Your task to perform on an android device: Open the calendar app, open the side menu, and click the "Day" option Image 0: 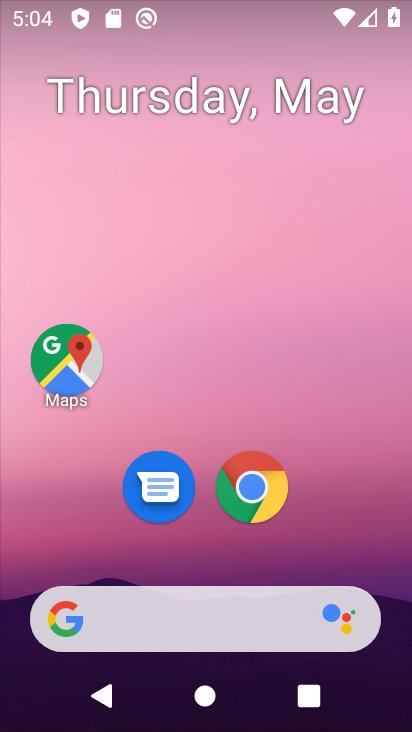
Step 0: drag from (323, 544) to (340, 54)
Your task to perform on an android device: Open the calendar app, open the side menu, and click the "Day" option Image 1: 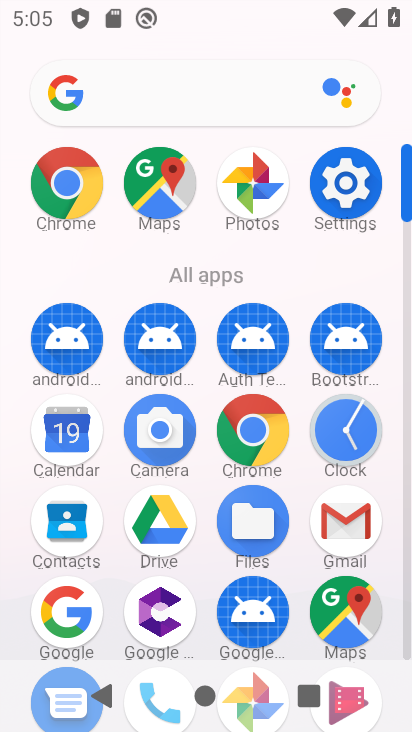
Step 1: click (72, 430)
Your task to perform on an android device: Open the calendar app, open the side menu, and click the "Day" option Image 2: 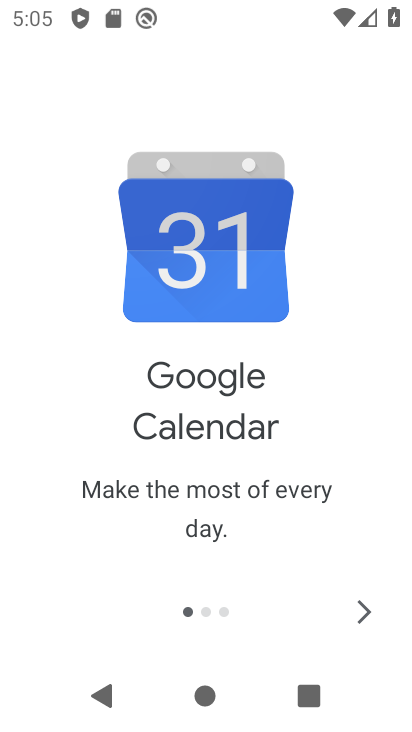
Step 2: click (355, 606)
Your task to perform on an android device: Open the calendar app, open the side menu, and click the "Day" option Image 3: 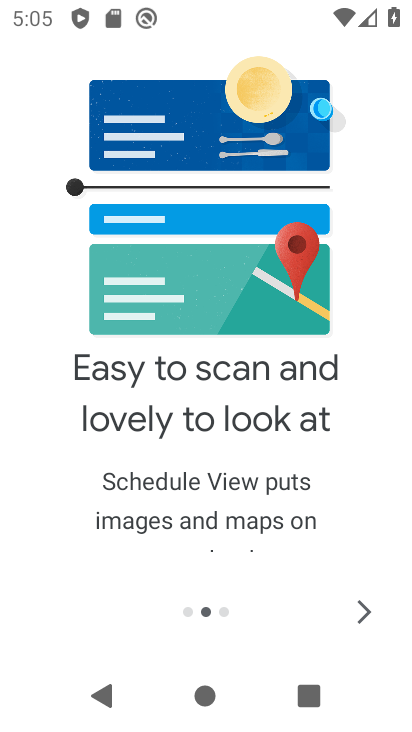
Step 3: click (355, 606)
Your task to perform on an android device: Open the calendar app, open the side menu, and click the "Day" option Image 4: 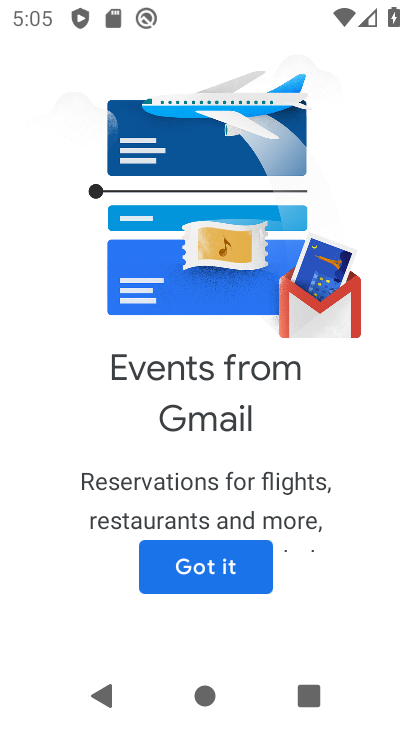
Step 4: click (261, 571)
Your task to perform on an android device: Open the calendar app, open the side menu, and click the "Day" option Image 5: 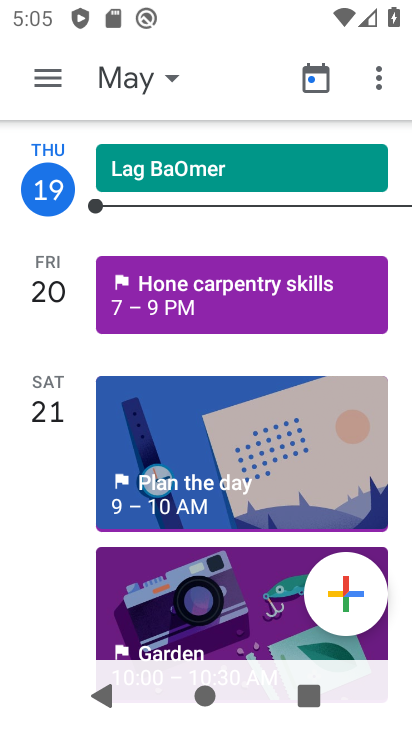
Step 5: click (46, 73)
Your task to perform on an android device: Open the calendar app, open the side menu, and click the "Day" option Image 6: 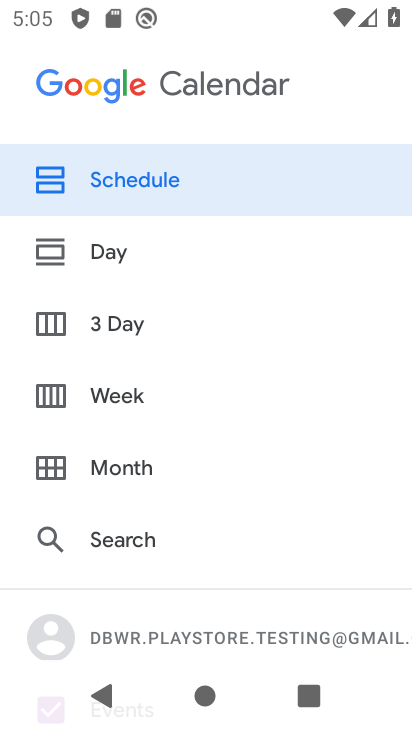
Step 6: click (138, 253)
Your task to perform on an android device: Open the calendar app, open the side menu, and click the "Day" option Image 7: 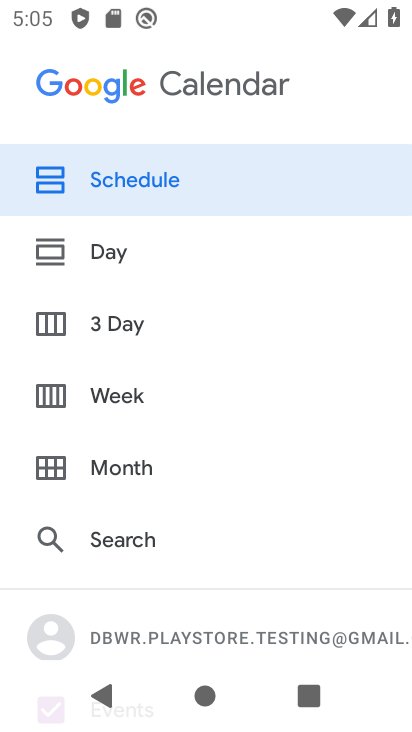
Step 7: click (104, 245)
Your task to perform on an android device: Open the calendar app, open the side menu, and click the "Day" option Image 8: 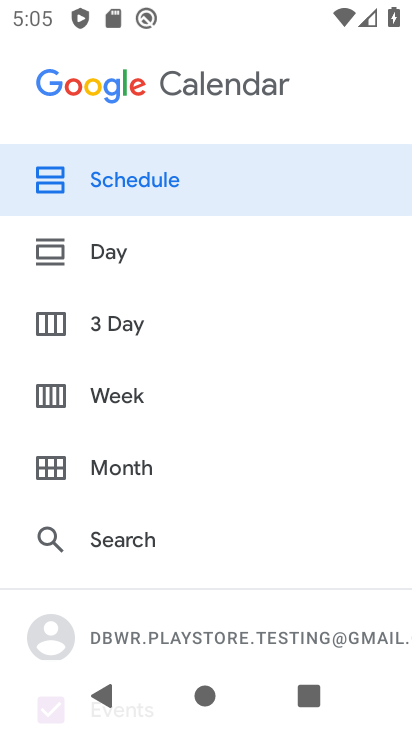
Step 8: click (65, 244)
Your task to perform on an android device: Open the calendar app, open the side menu, and click the "Day" option Image 9: 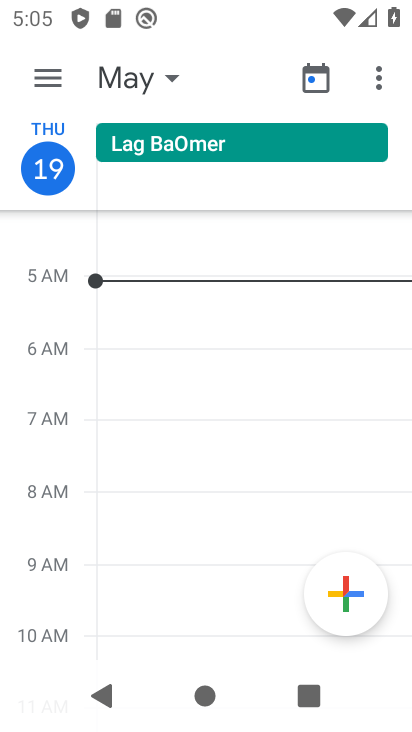
Step 9: task complete